Your task to perform on an android device: Go to display settings Image 0: 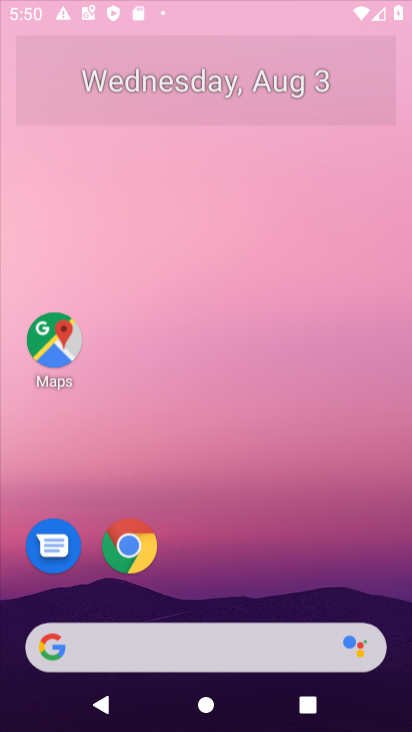
Step 0: press home button
Your task to perform on an android device: Go to display settings Image 1: 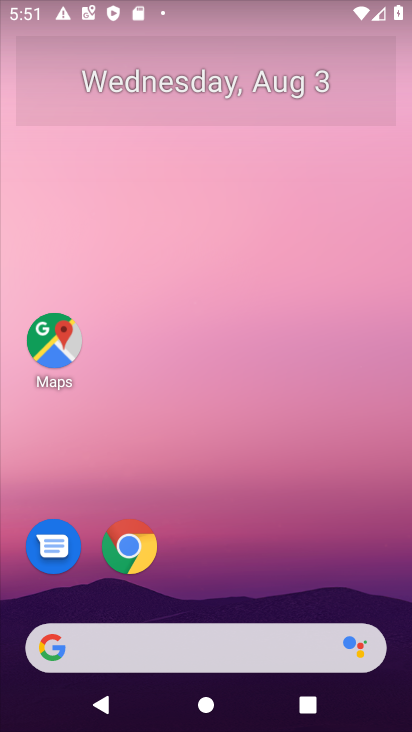
Step 1: drag from (252, 605) to (285, 166)
Your task to perform on an android device: Go to display settings Image 2: 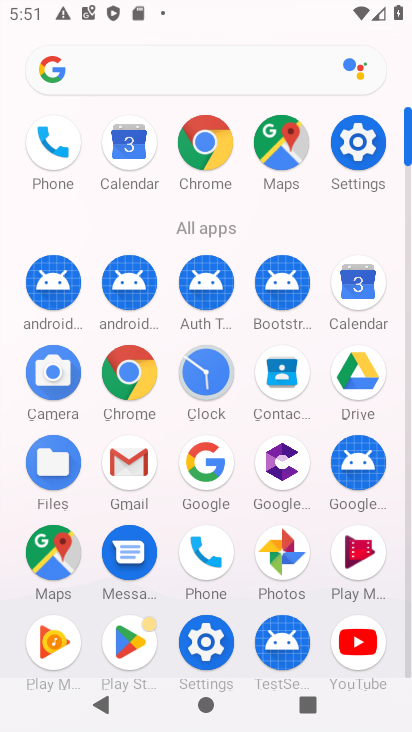
Step 2: click (363, 152)
Your task to perform on an android device: Go to display settings Image 3: 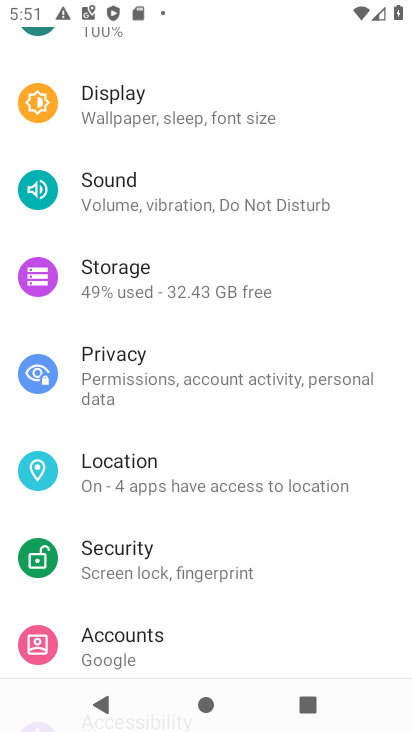
Step 3: click (108, 114)
Your task to perform on an android device: Go to display settings Image 4: 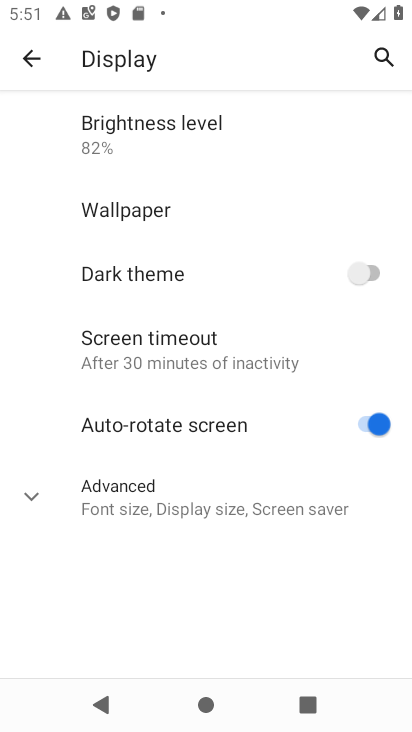
Step 4: task complete